Your task to perform on an android device: turn pop-ups off in chrome Image 0: 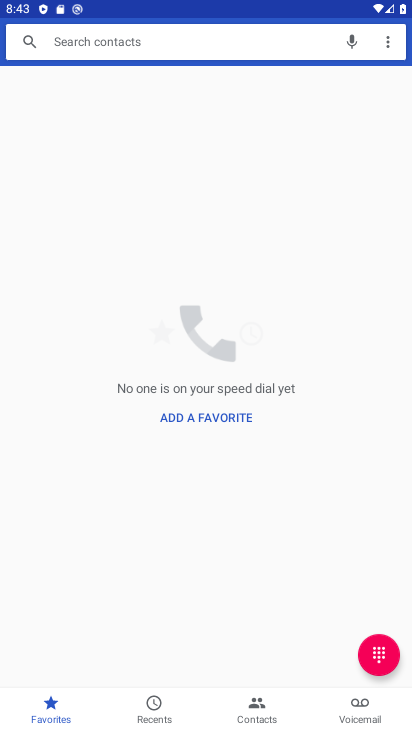
Step 0: drag from (171, 693) to (407, 369)
Your task to perform on an android device: turn pop-ups off in chrome Image 1: 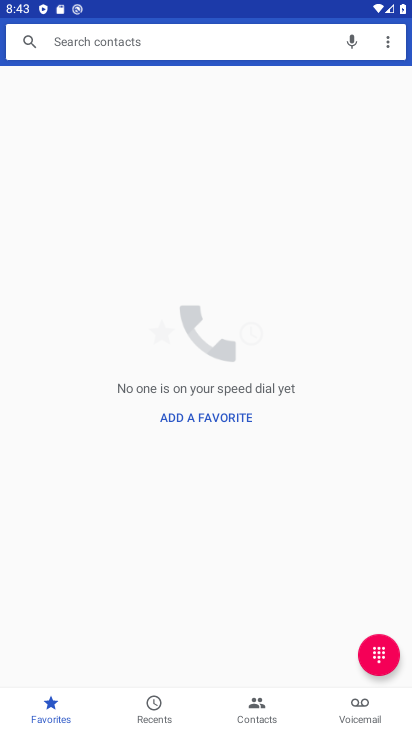
Step 1: press home button
Your task to perform on an android device: turn pop-ups off in chrome Image 2: 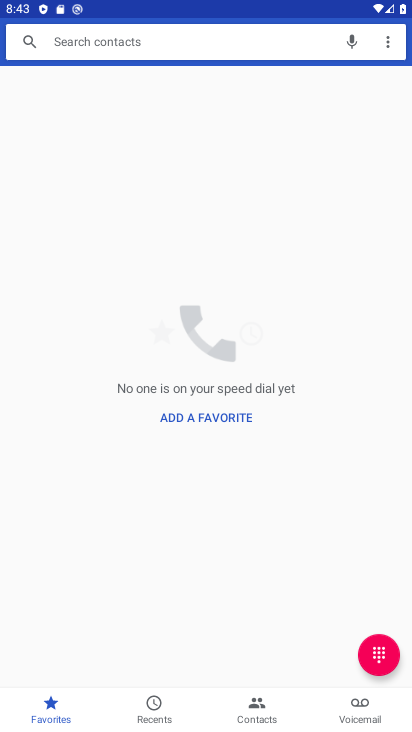
Step 2: drag from (407, 369) to (382, 529)
Your task to perform on an android device: turn pop-ups off in chrome Image 3: 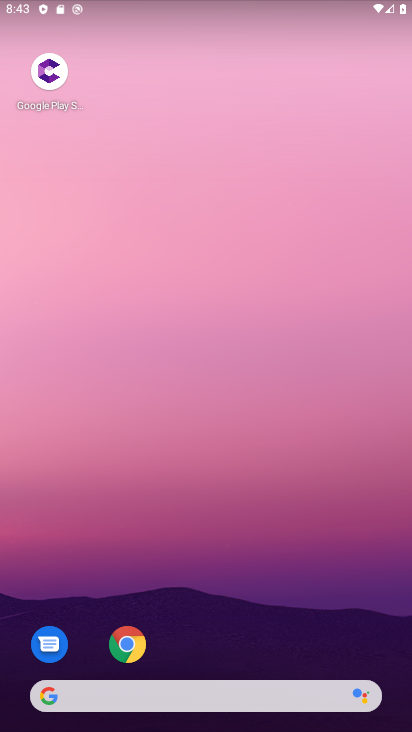
Step 3: click (131, 644)
Your task to perform on an android device: turn pop-ups off in chrome Image 4: 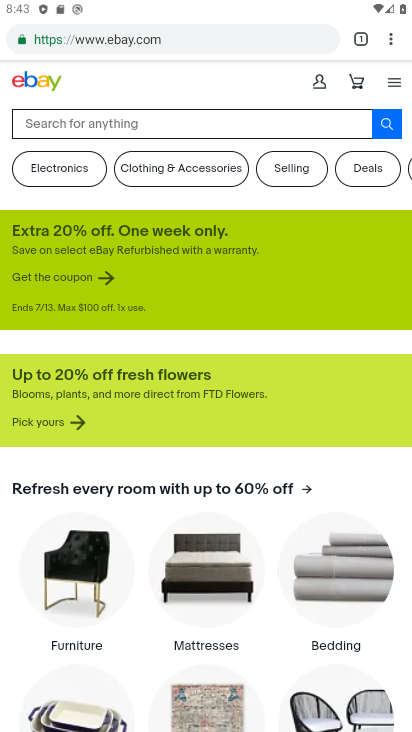
Step 4: drag from (398, 35) to (275, 464)
Your task to perform on an android device: turn pop-ups off in chrome Image 5: 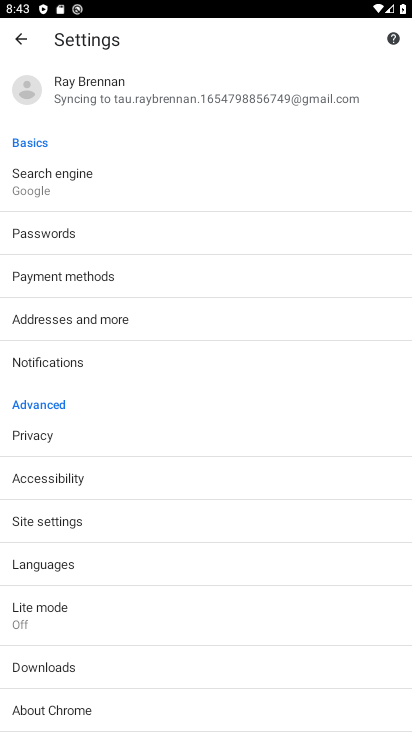
Step 5: click (99, 523)
Your task to perform on an android device: turn pop-ups off in chrome Image 6: 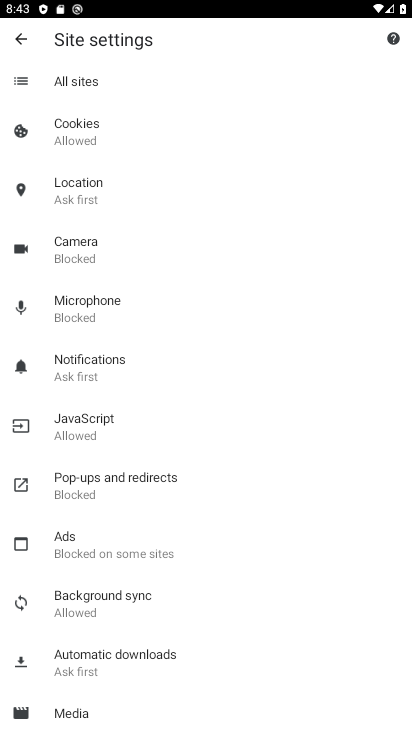
Step 6: click (134, 494)
Your task to perform on an android device: turn pop-ups off in chrome Image 7: 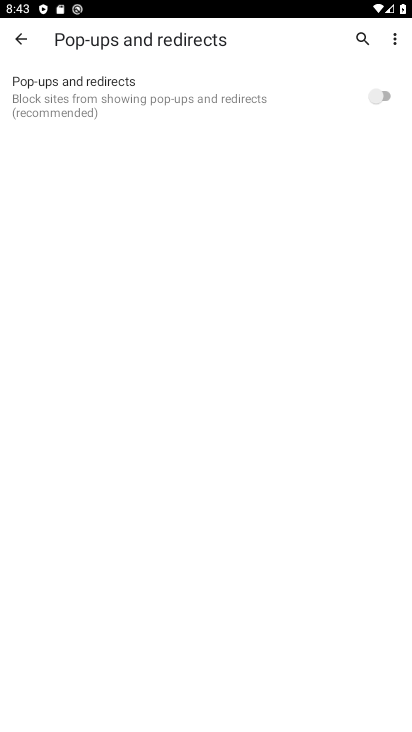
Step 7: task complete